Your task to perform on an android device: Open Google Chrome and click the shortcut for Amazon.com Image 0: 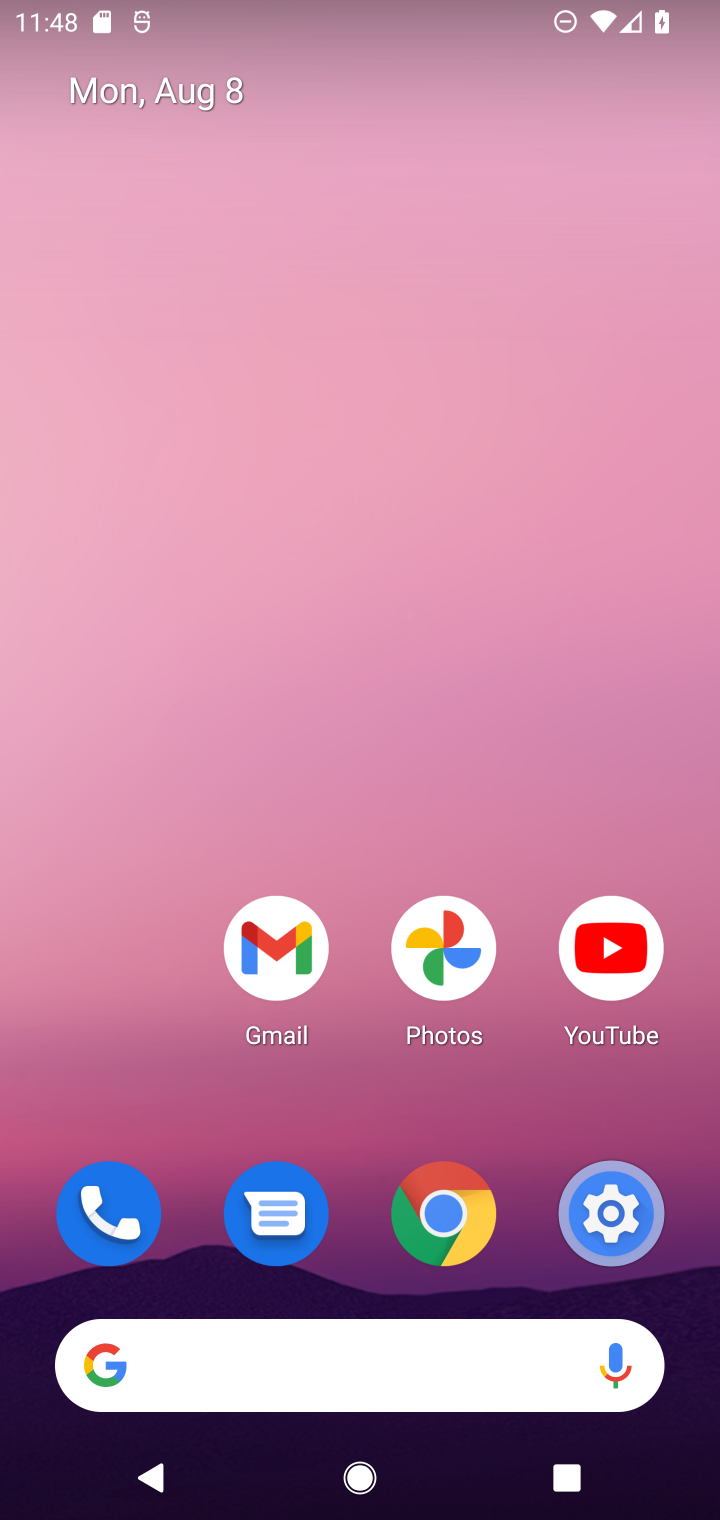
Step 0: click (449, 1197)
Your task to perform on an android device: Open Google Chrome and click the shortcut for Amazon.com Image 1: 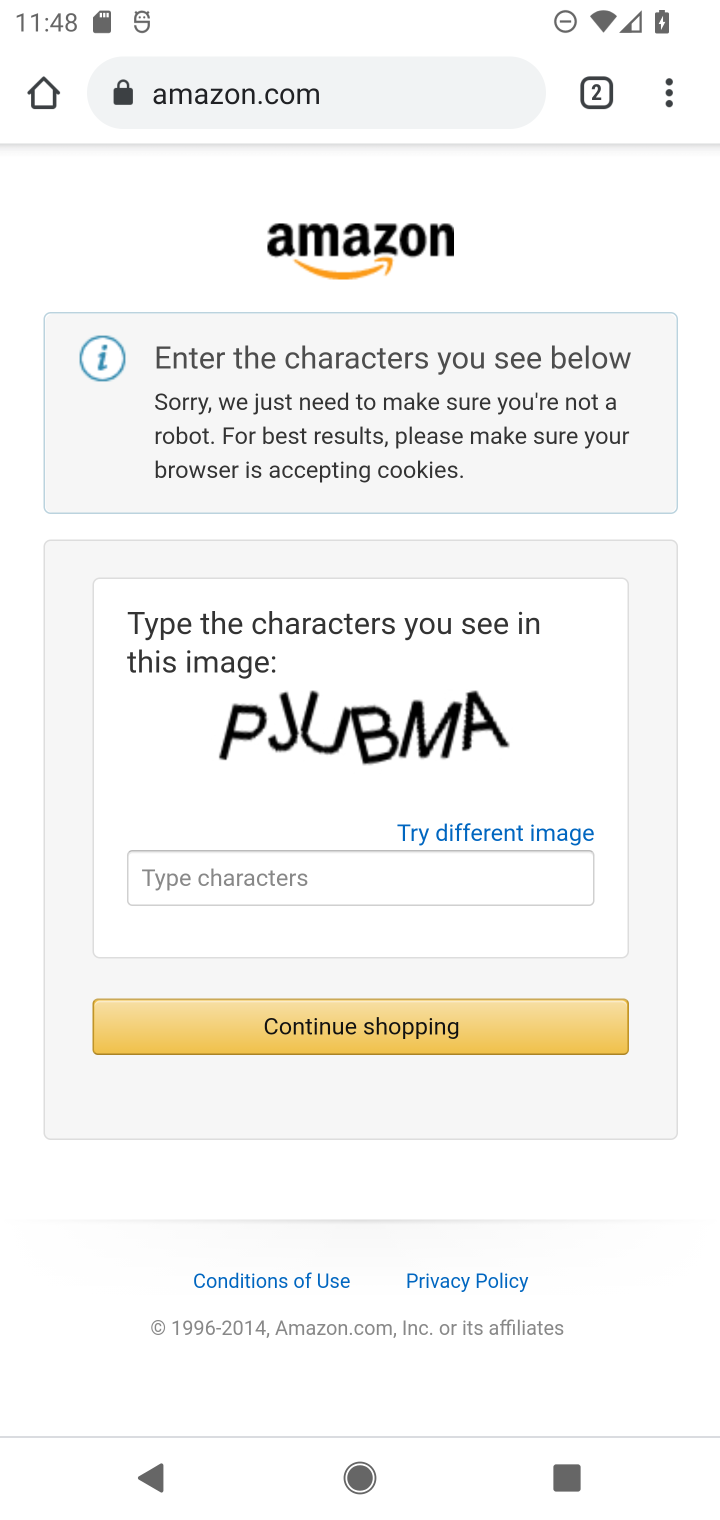
Step 1: click (279, 881)
Your task to perform on an android device: Open Google Chrome and click the shortcut for Amazon.com Image 2: 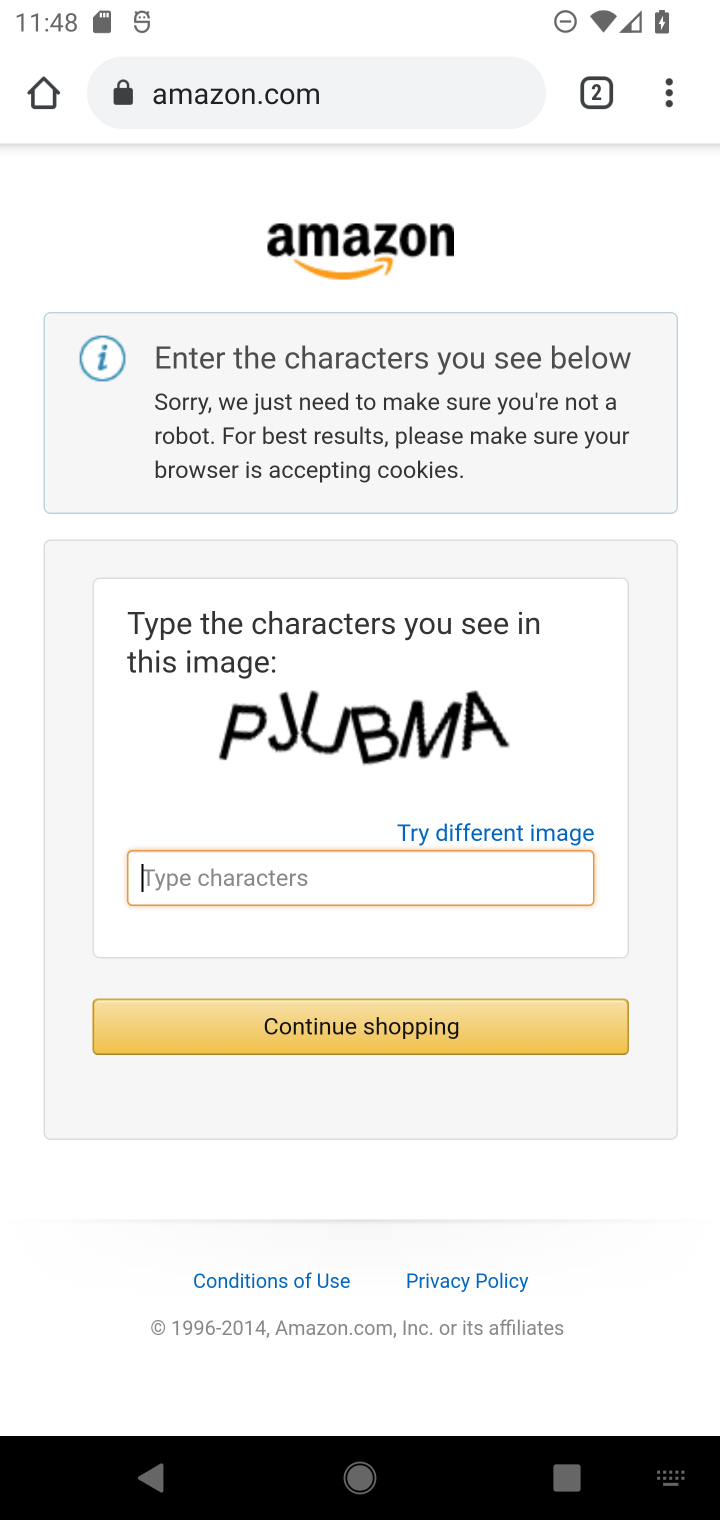
Step 2: type "PJUBMA"
Your task to perform on an android device: Open Google Chrome and click the shortcut for Amazon.com Image 3: 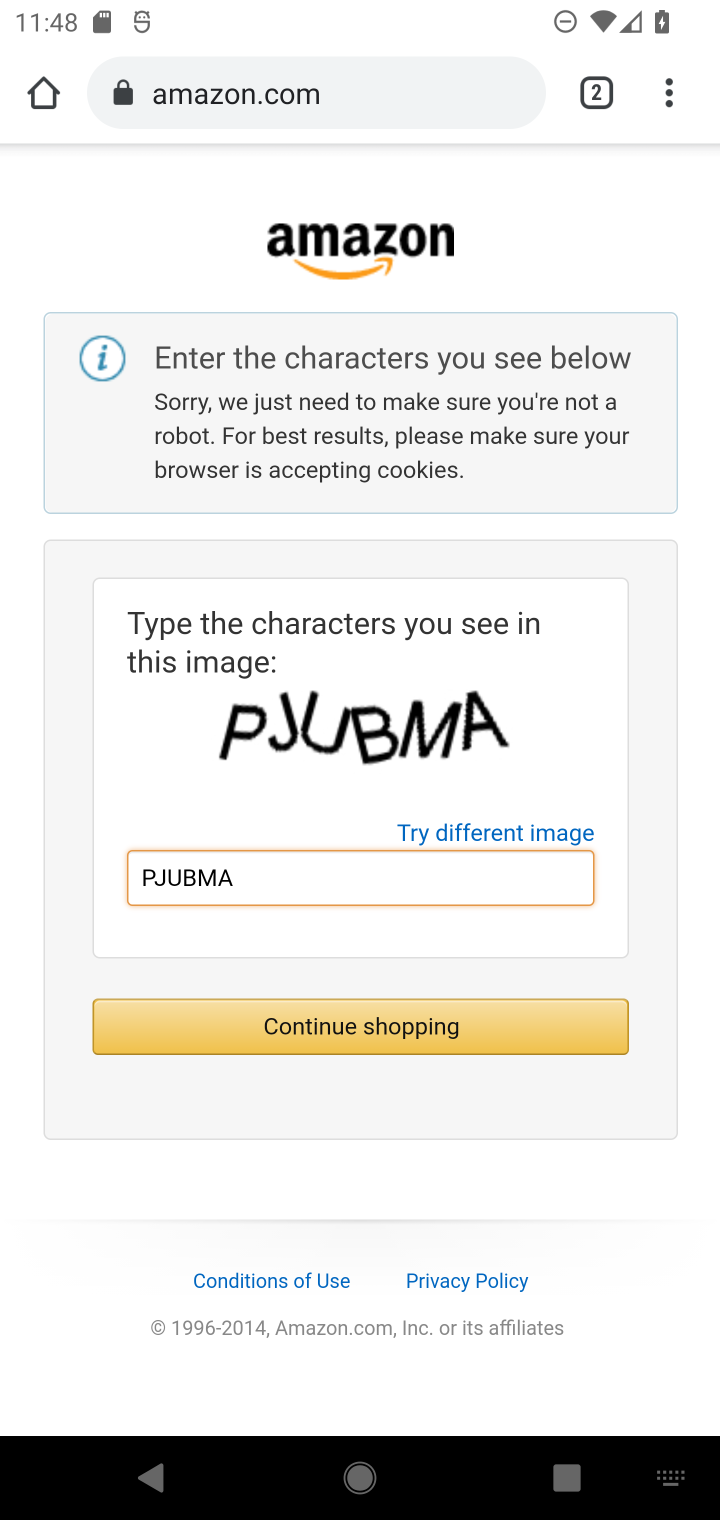
Step 3: click (433, 1012)
Your task to perform on an android device: Open Google Chrome and click the shortcut for Amazon.com Image 4: 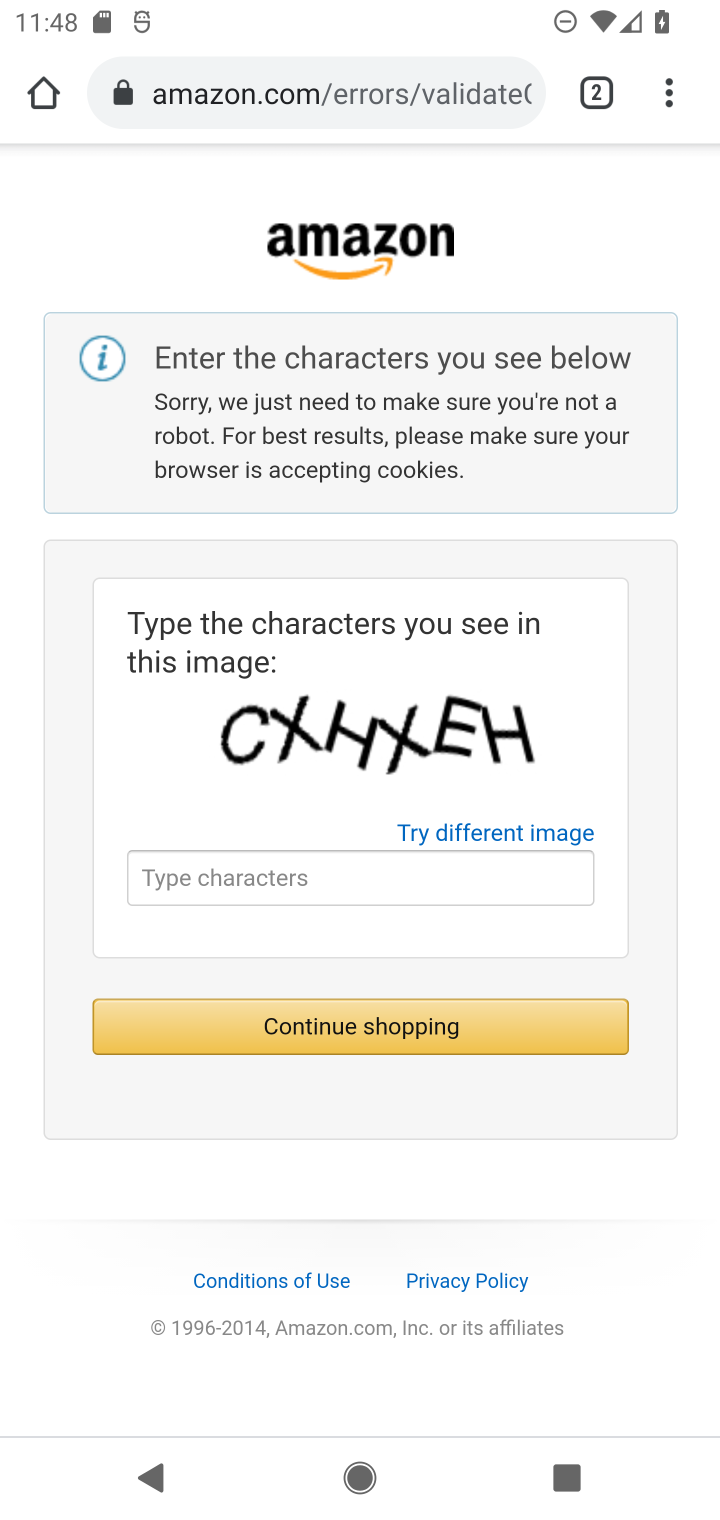
Step 4: click (372, 870)
Your task to perform on an android device: Open Google Chrome and click the shortcut for Amazon.com Image 5: 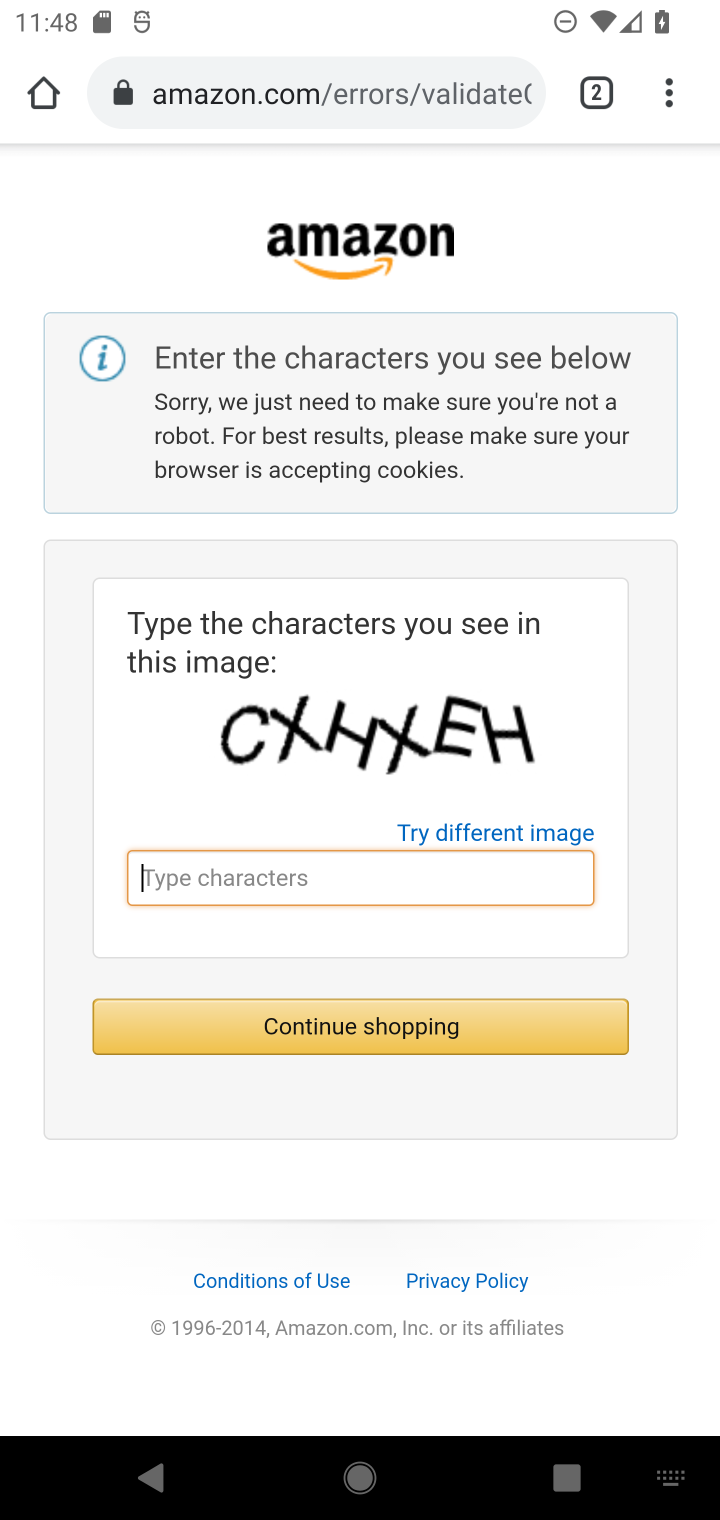
Step 5: type "CXHXEH"
Your task to perform on an android device: Open Google Chrome and click the shortcut for Amazon.com Image 6: 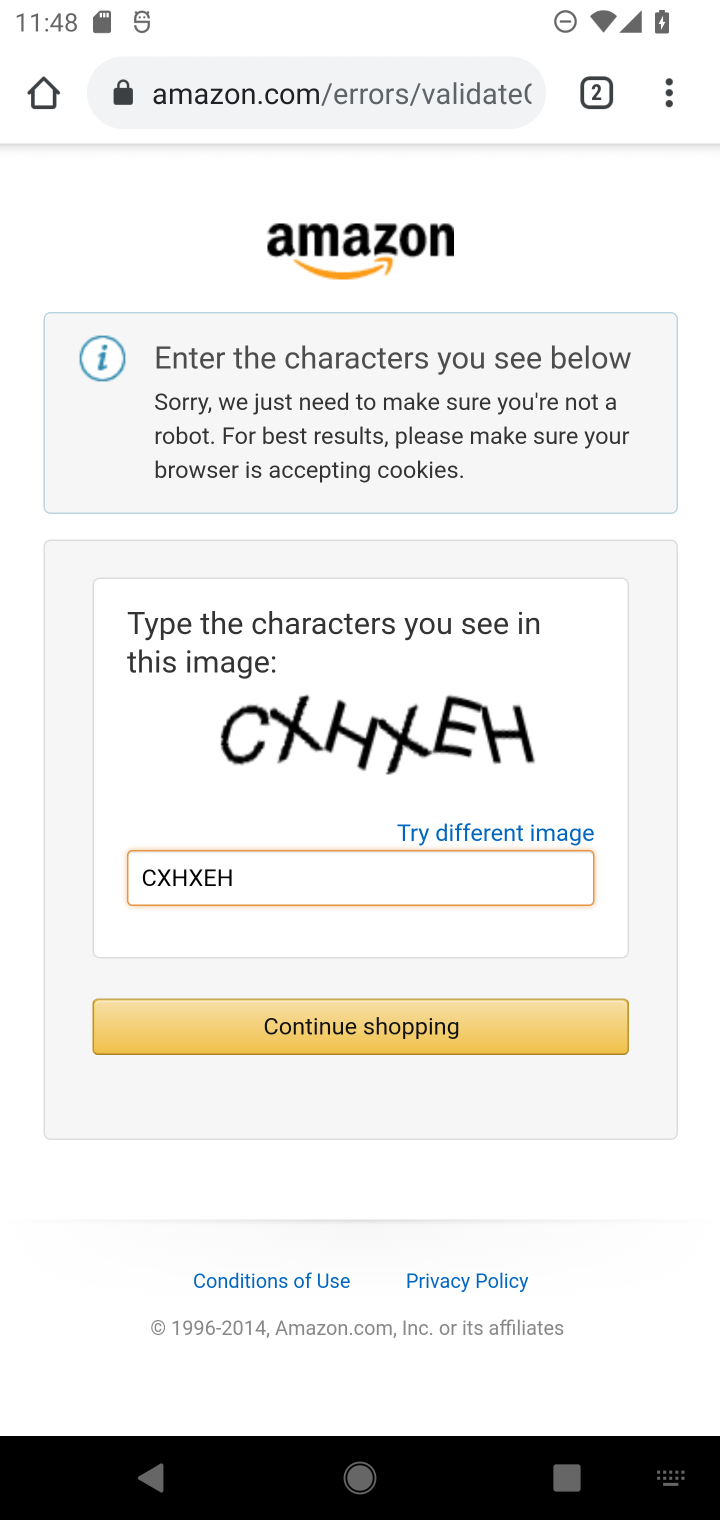
Step 6: click (449, 1041)
Your task to perform on an android device: Open Google Chrome and click the shortcut for Amazon.com Image 7: 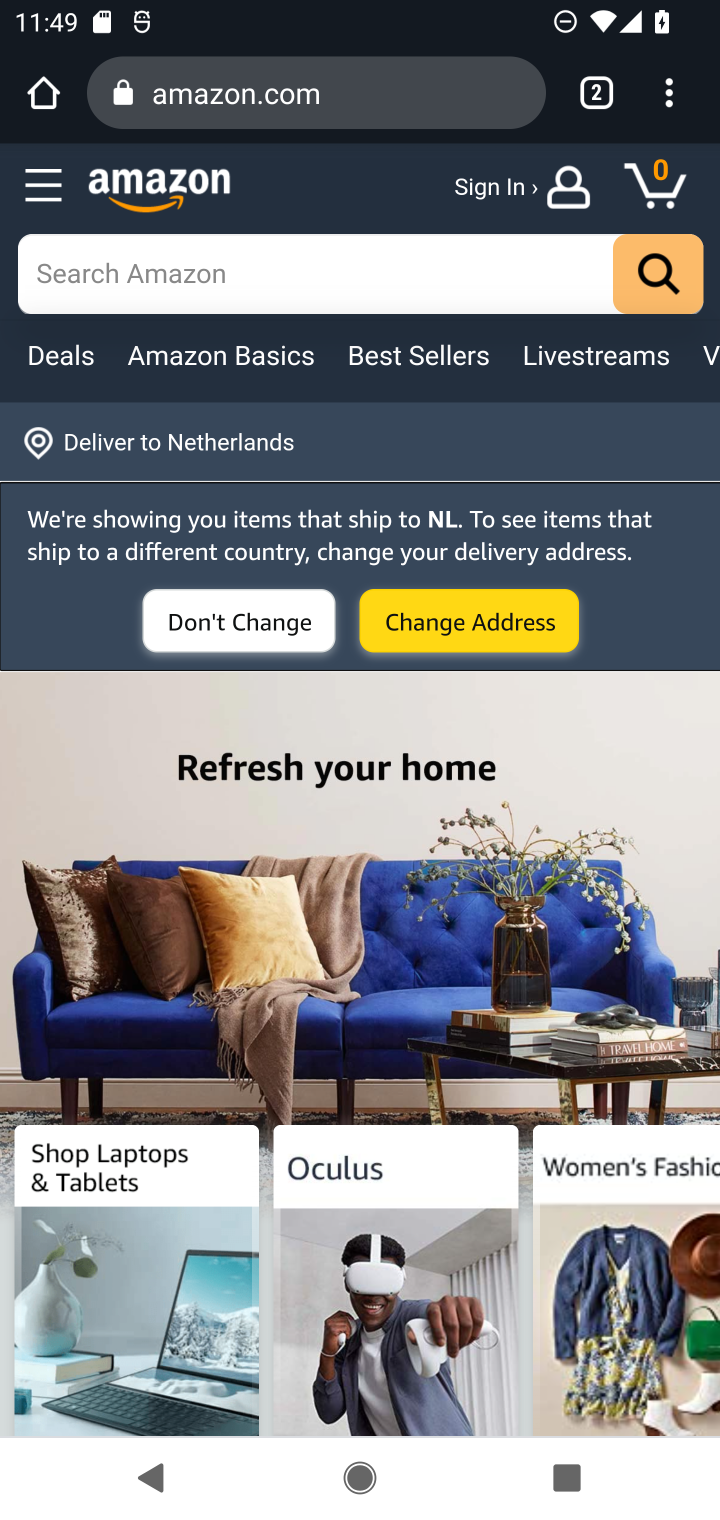
Step 7: task complete